Your task to perform on an android device: Open calendar and show me the first week of next month Image 0: 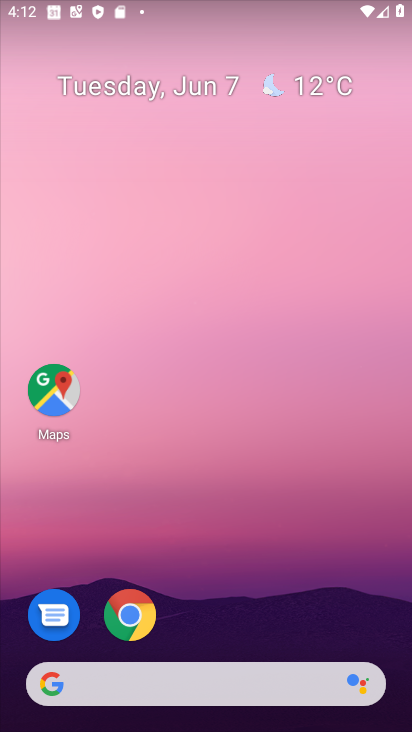
Step 0: drag from (219, 536) to (276, 182)
Your task to perform on an android device: Open calendar and show me the first week of next month Image 1: 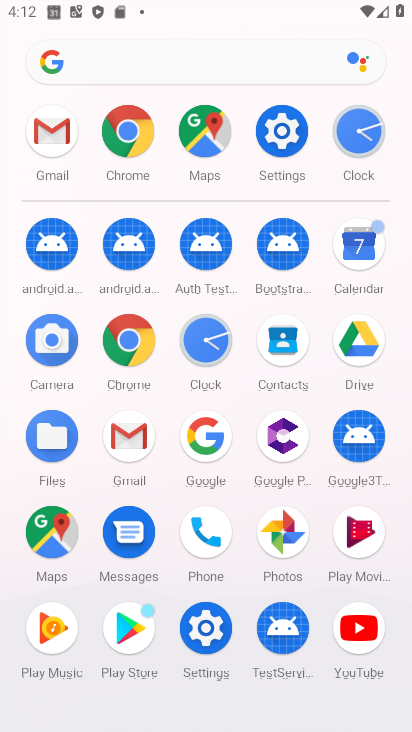
Step 1: click (381, 267)
Your task to perform on an android device: Open calendar and show me the first week of next month Image 2: 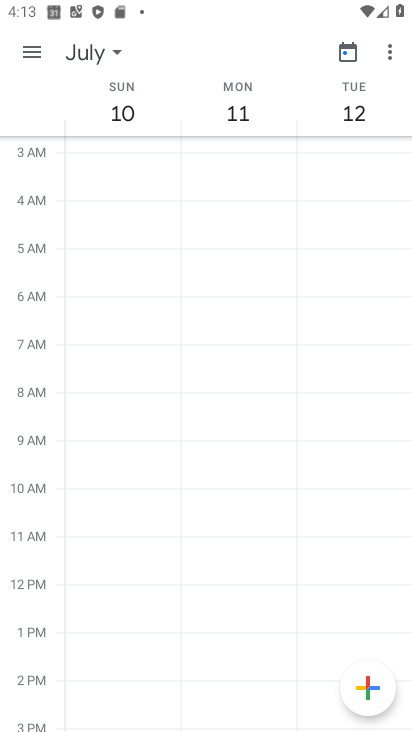
Step 2: click (28, 28)
Your task to perform on an android device: Open calendar and show me the first week of next month Image 3: 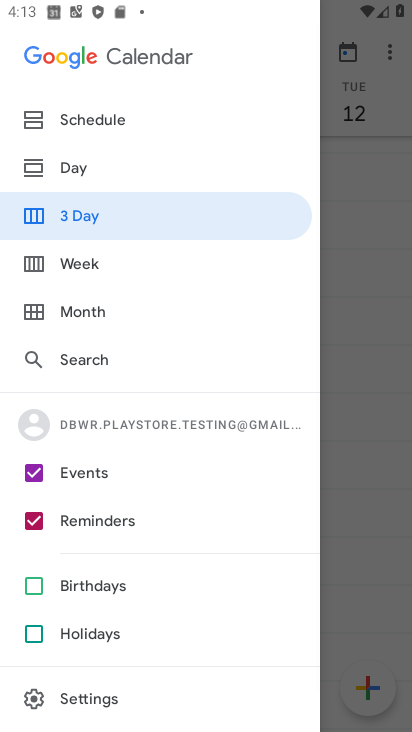
Step 3: click (68, 263)
Your task to perform on an android device: Open calendar and show me the first week of next month Image 4: 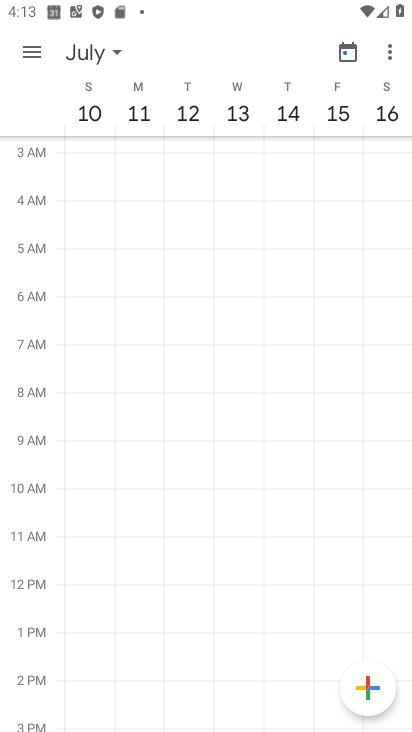
Step 4: click (97, 54)
Your task to perform on an android device: Open calendar and show me the first week of next month Image 5: 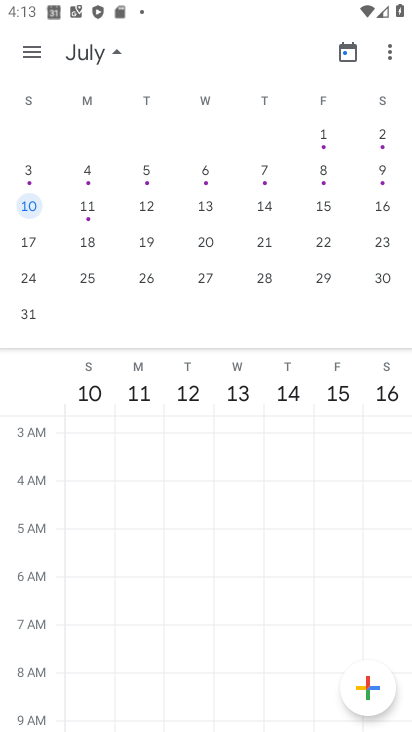
Step 5: drag from (301, 208) to (0, 81)
Your task to perform on an android device: Open calendar and show me the first week of next month Image 6: 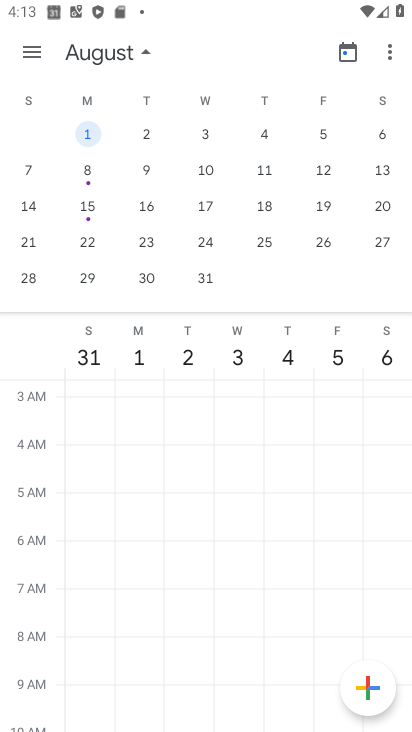
Step 6: click (21, 172)
Your task to perform on an android device: Open calendar and show me the first week of next month Image 7: 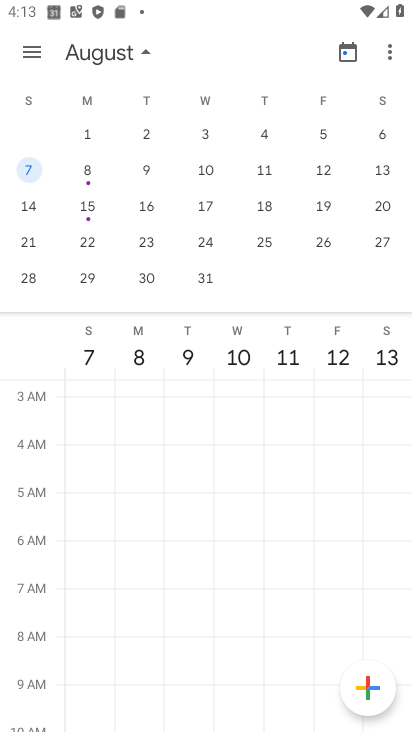
Step 7: click (21, 172)
Your task to perform on an android device: Open calendar and show me the first week of next month Image 8: 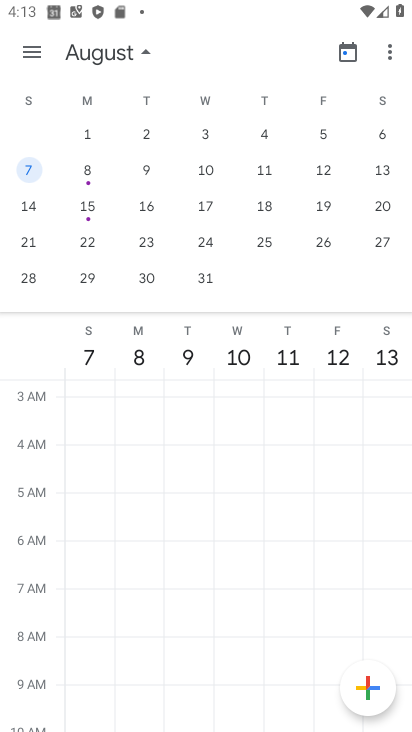
Step 8: drag from (107, 153) to (407, 197)
Your task to perform on an android device: Open calendar and show me the first week of next month Image 9: 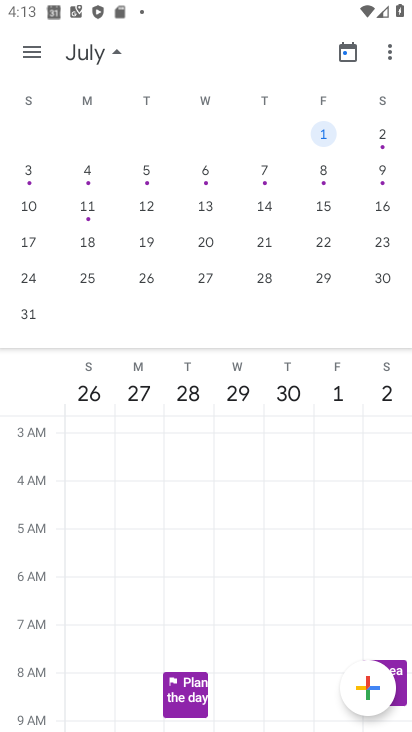
Step 9: click (323, 136)
Your task to perform on an android device: Open calendar and show me the first week of next month Image 10: 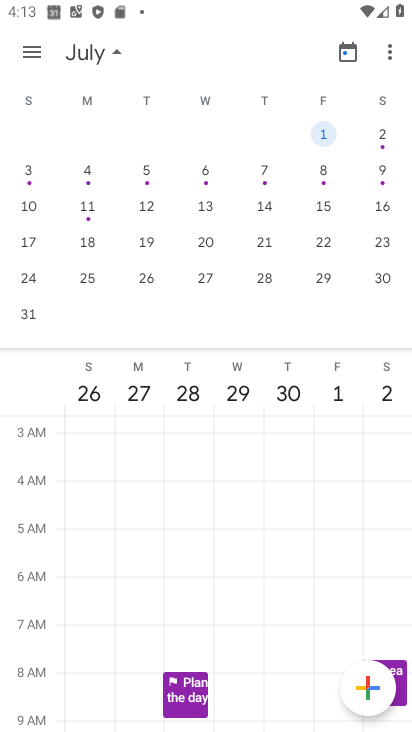
Step 10: click (27, 47)
Your task to perform on an android device: Open calendar and show me the first week of next month Image 11: 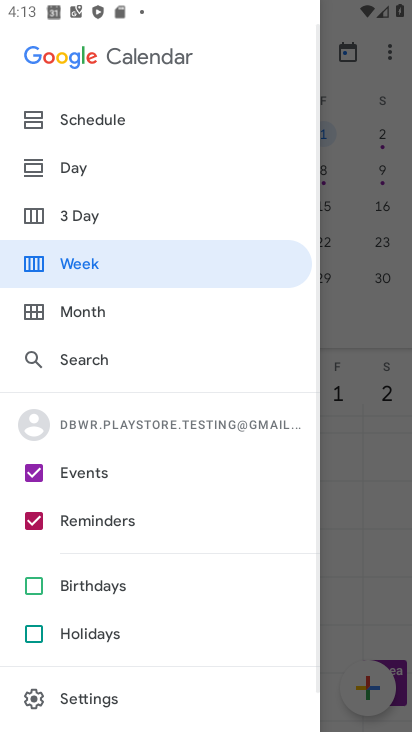
Step 11: click (90, 273)
Your task to perform on an android device: Open calendar and show me the first week of next month Image 12: 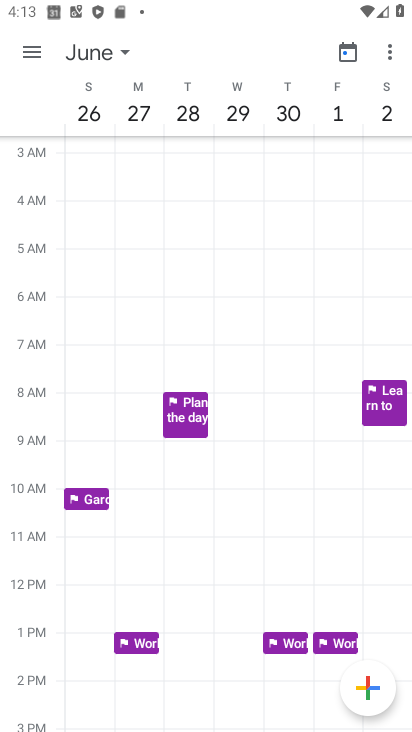
Step 12: task complete